Your task to perform on an android device: Go to display settings Image 0: 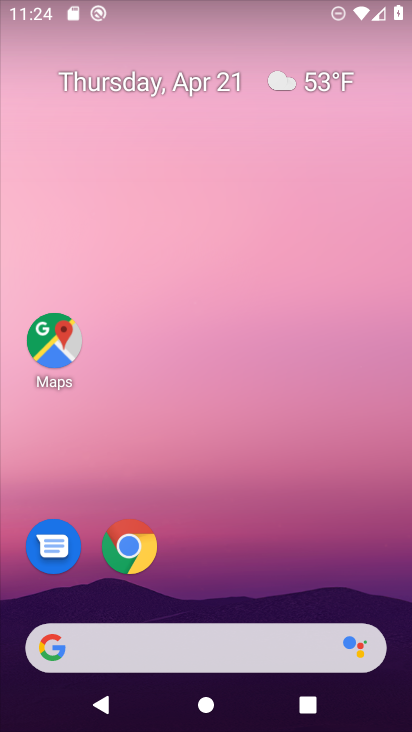
Step 0: drag from (196, 625) to (270, 271)
Your task to perform on an android device: Go to display settings Image 1: 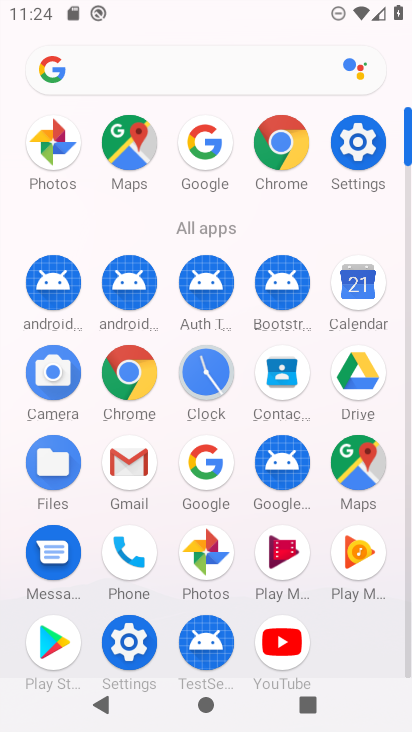
Step 1: click (359, 141)
Your task to perform on an android device: Go to display settings Image 2: 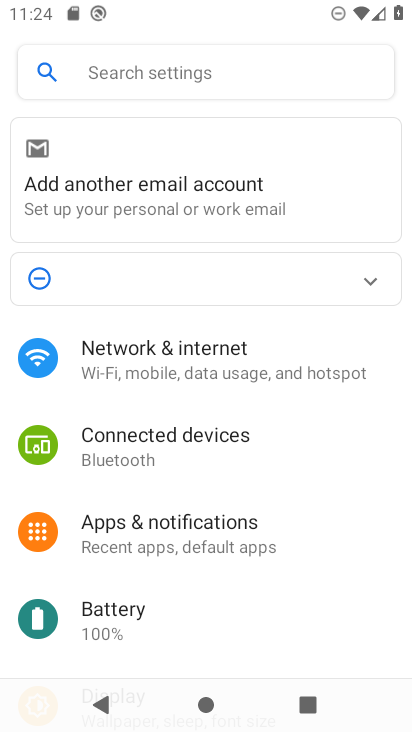
Step 2: drag from (173, 624) to (198, 268)
Your task to perform on an android device: Go to display settings Image 3: 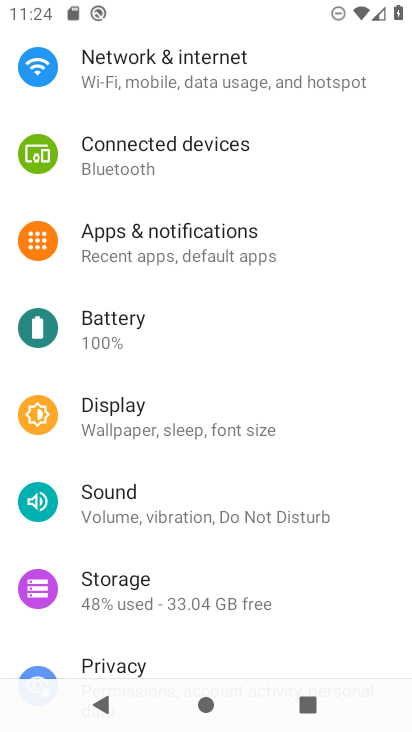
Step 3: click (139, 425)
Your task to perform on an android device: Go to display settings Image 4: 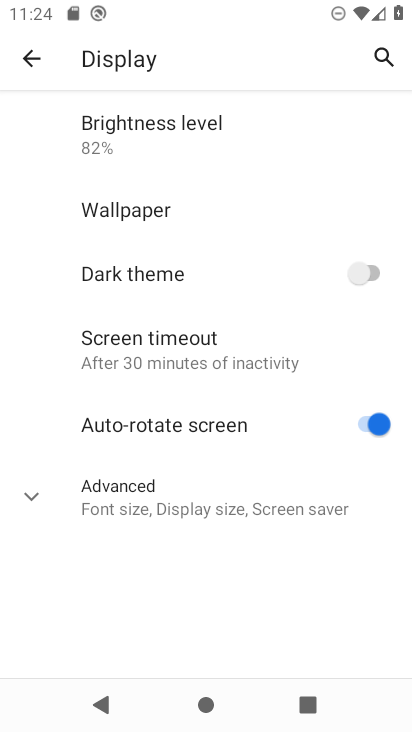
Step 4: click (143, 497)
Your task to perform on an android device: Go to display settings Image 5: 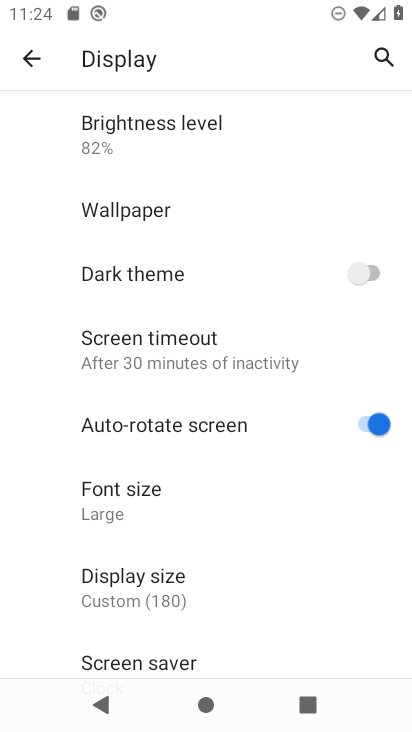
Step 5: task complete